Your task to perform on an android device: Open wifi settings Image 0: 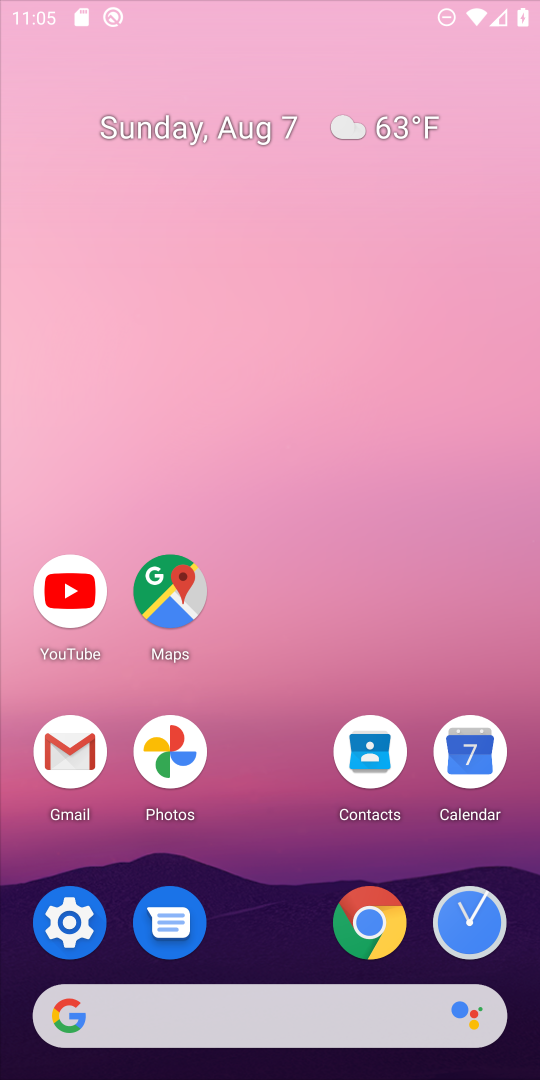
Step 0: press home button
Your task to perform on an android device: Open wifi settings Image 1: 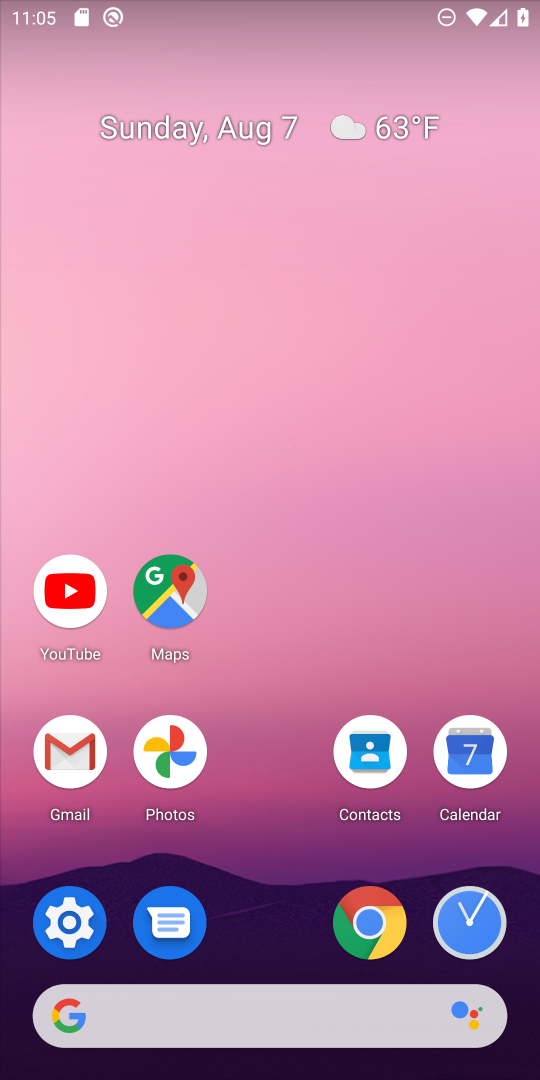
Step 1: click (72, 912)
Your task to perform on an android device: Open wifi settings Image 2: 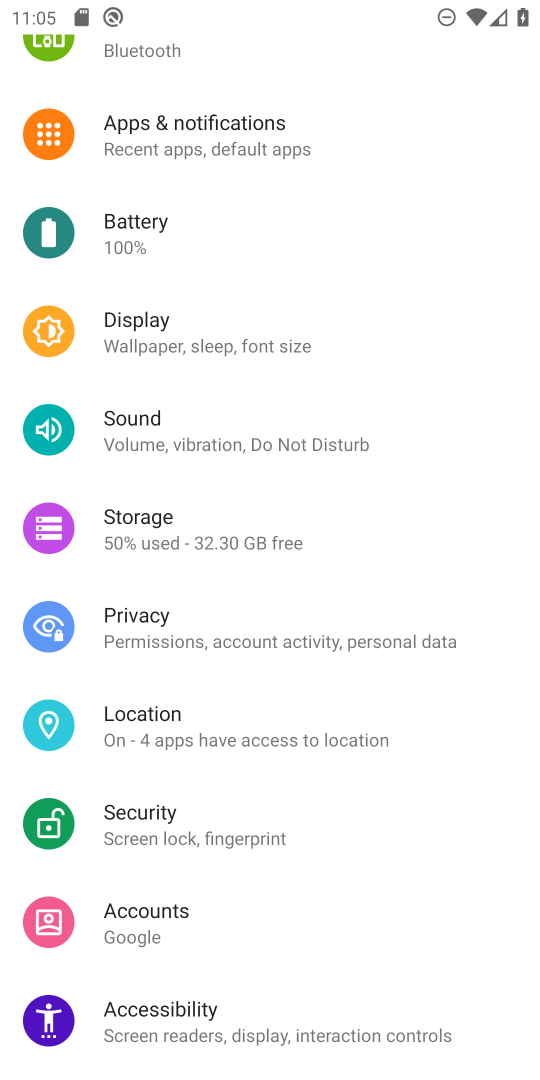
Step 2: drag from (332, 253) to (294, 682)
Your task to perform on an android device: Open wifi settings Image 3: 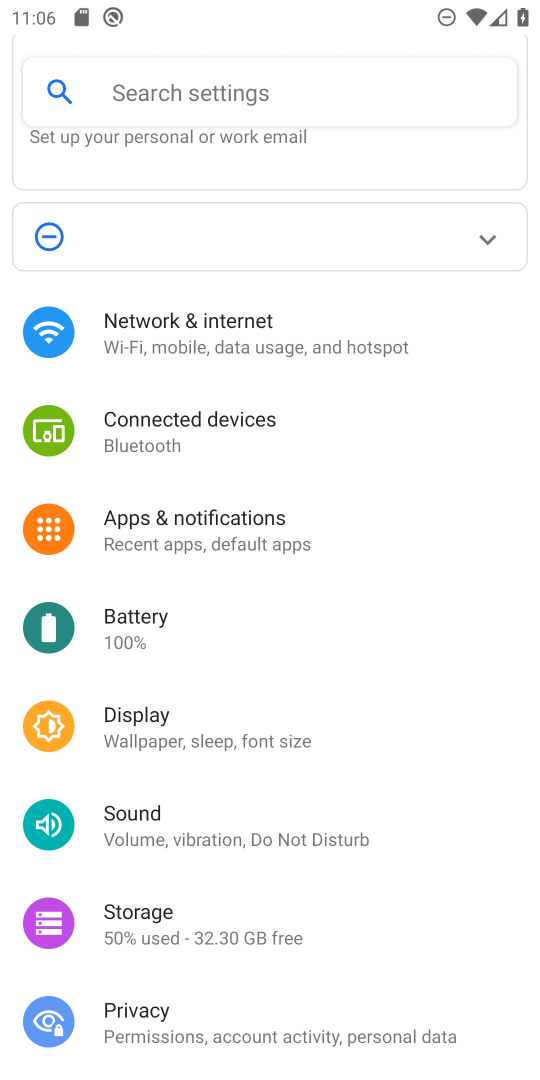
Step 3: click (225, 323)
Your task to perform on an android device: Open wifi settings Image 4: 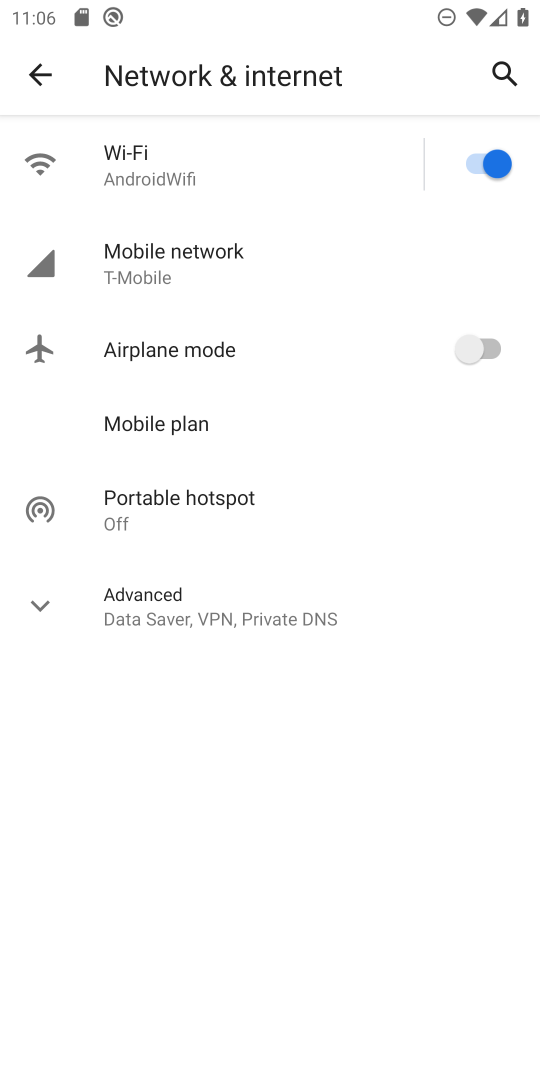
Step 4: click (102, 154)
Your task to perform on an android device: Open wifi settings Image 5: 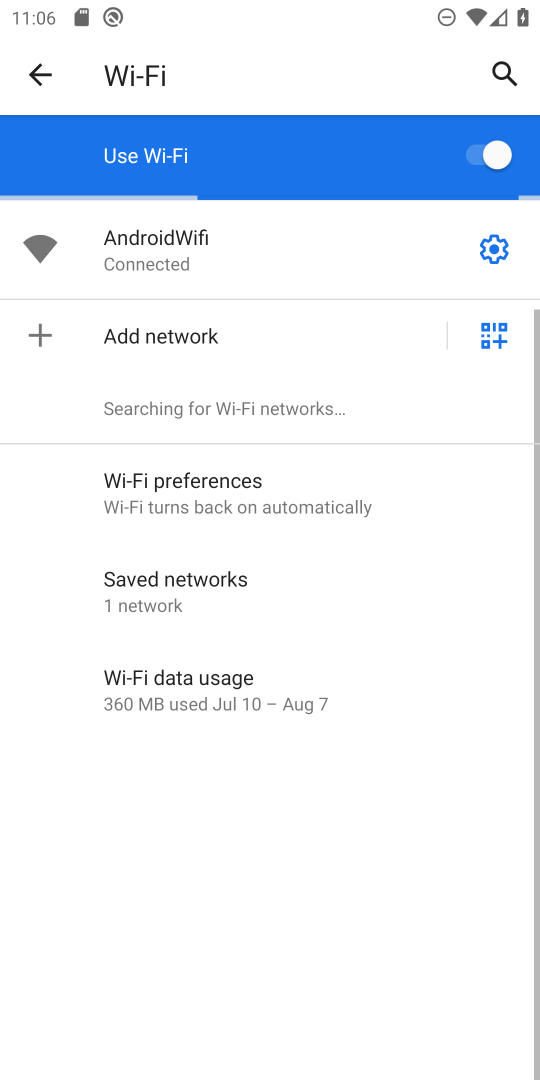
Step 5: task complete